Your task to perform on an android device: Open calendar and show me the second week of next month Image 0: 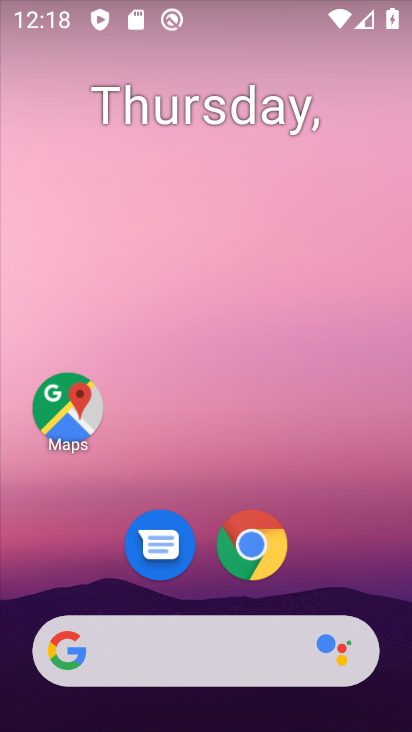
Step 0: drag from (220, 588) to (257, 281)
Your task to perform on an android device: Open calendar and show me the second week of next month Image 1: 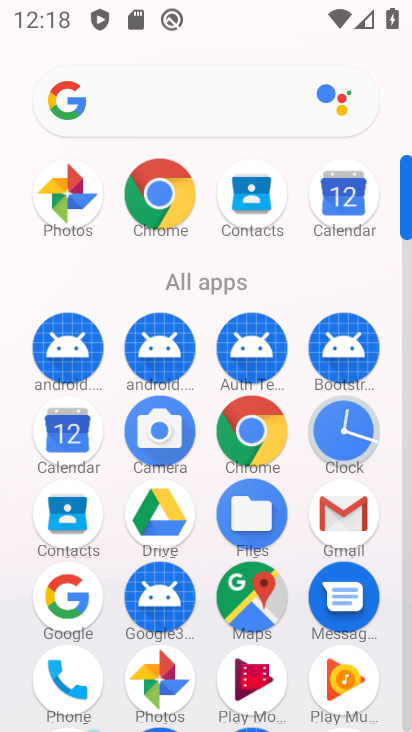
Step 1: click (74, 439)
Your task to perform on an android device: Open calendar and show me the second week of next month Image 2: 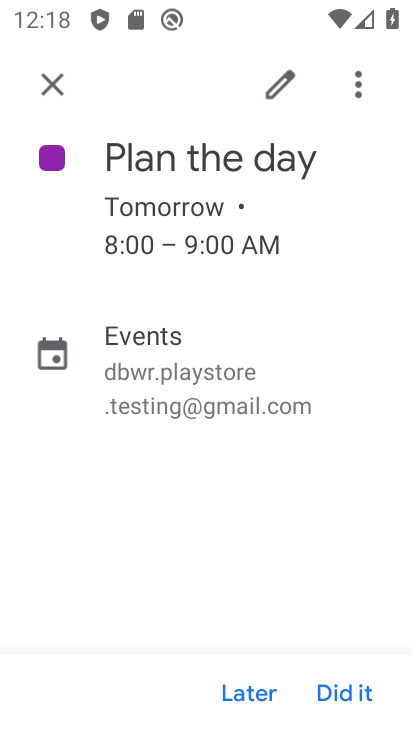
Step 2: press back button
Your task to perform on an android device: Open calendar and show me the second week of next month Image 3: 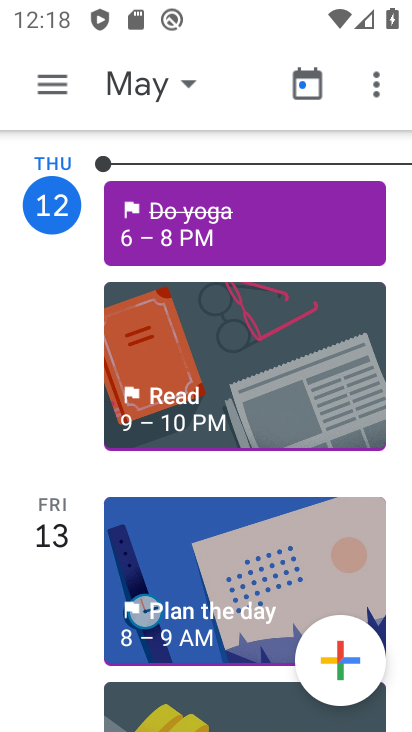
Step 3: click (170, 84)
Your task to perform on an android device: Open calendar and show me the second week of next month Image 4: 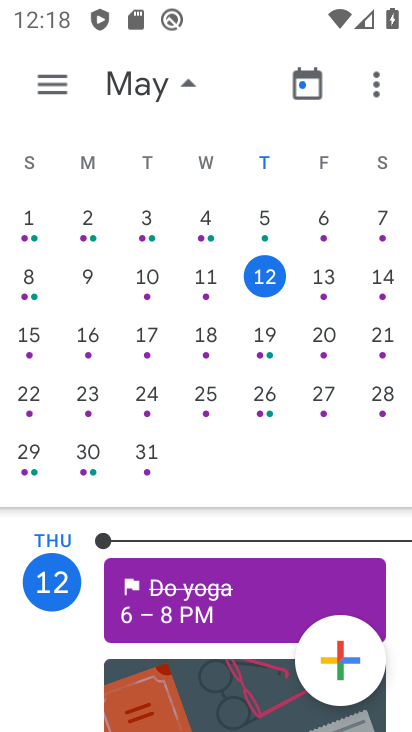
Step 4: drag from (321, 300) to (34, 330)
Your task to perform on an android device: Open calendar and show me the second week of next month Image 5: 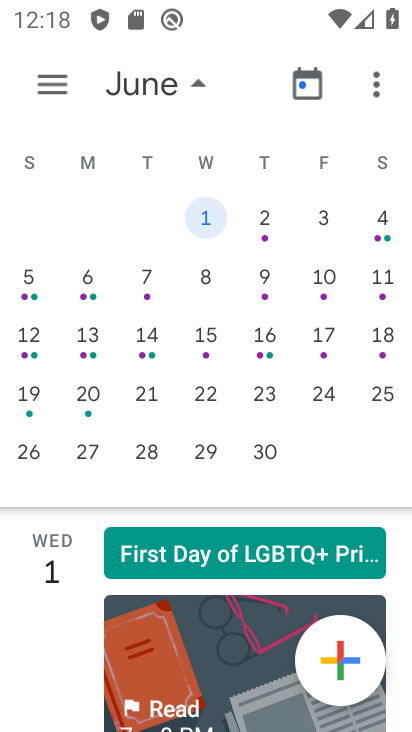
Step 5: click (34, 281)
Your task to perform on an android device: Open calendar and show me the second week of next month Image 6: 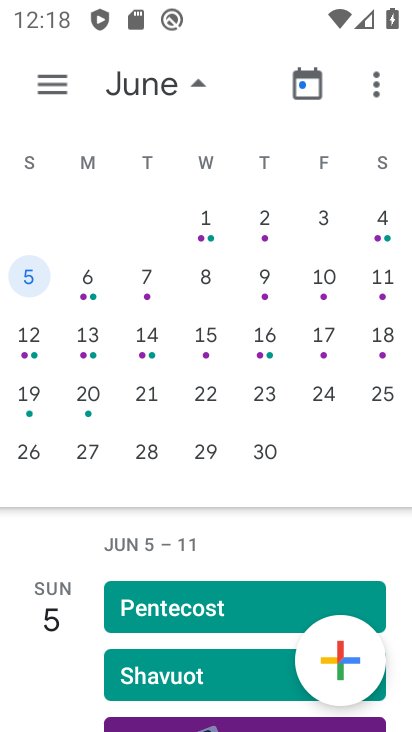
Step 6: click (176, 94)
Your task to perform on an android device: Open calendar and show me the second week of next month Image 7: 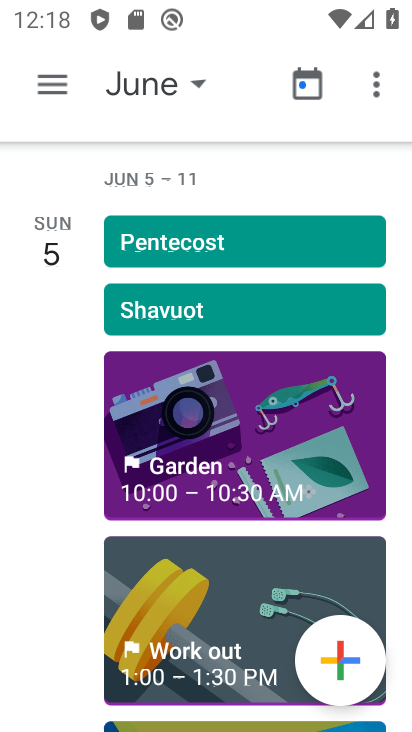
Step 7: click (46, 98)
Your task to perform on an android device: Open calendar and show me the second week of next month Image 8: 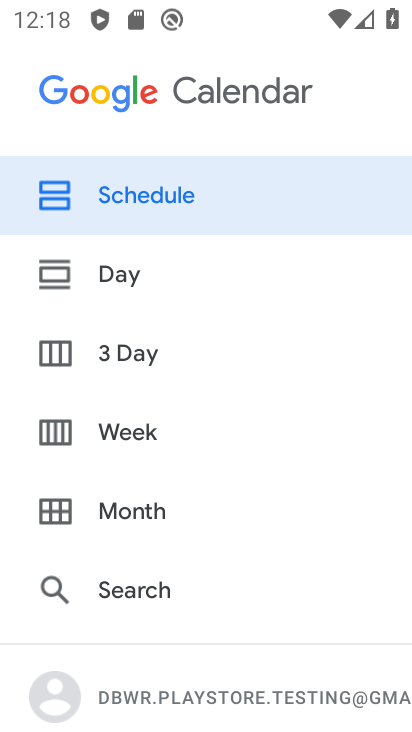
Step 8: click (153, 434)
Your task to perform on an android device: Open calendar and show me the second week of next month Image 9: 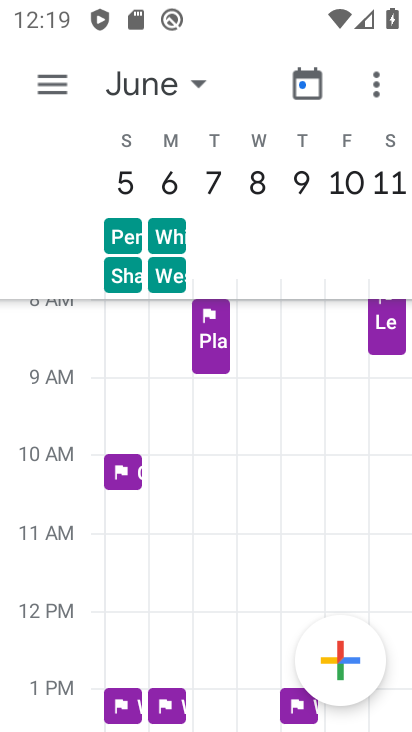
Step 9: task complete